Your task to perform on an android device: allow cookies in the chrome app Image 0: 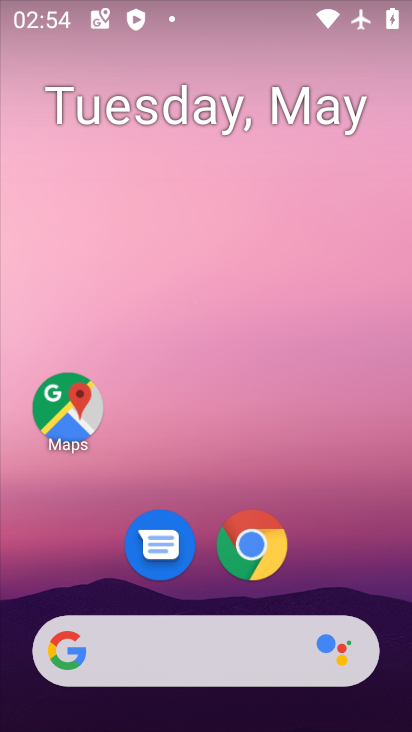
Step 0: click (253, 541)
Your task to perform on an android device: allow cookies in the chrome app Image 1: 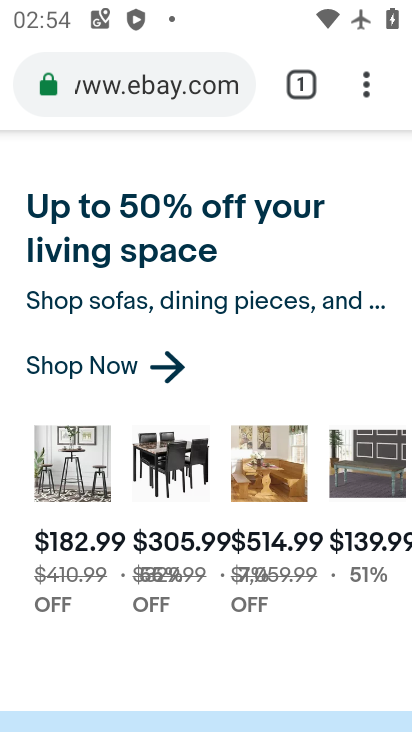
Step 1: click (364, 90)
Your task to perform on an android device: allow cookies in the chrome app Image 2: 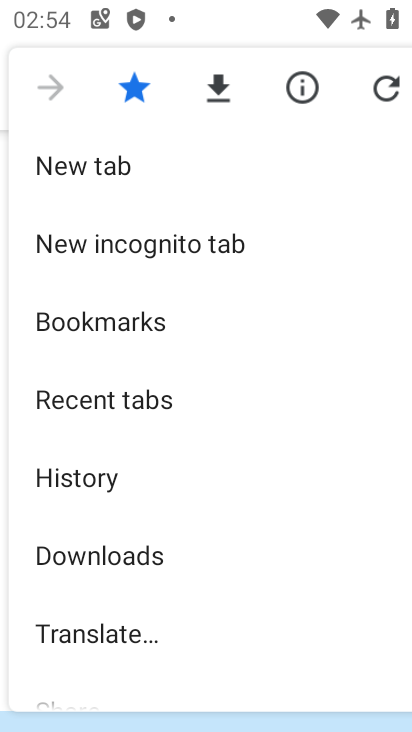
Step 2: drag from (226, 595) to (221, 270)
Your task to perform on an android device: allow cookies in the chrome app Image 3: 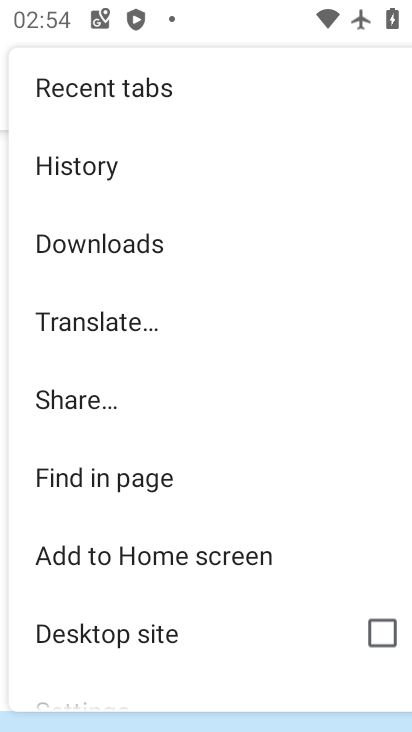
Step 3: drag from (279, 607) to (235, 234)
Your task to perform on an android device: allow cookies in the chrome app Image 4: 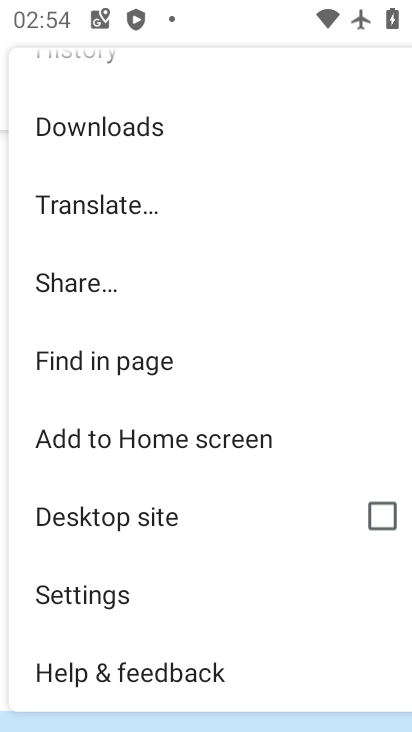
Step 4: click (94, 595)
Your task to perform on an android device: allow cookies in the chrome app Image 5: 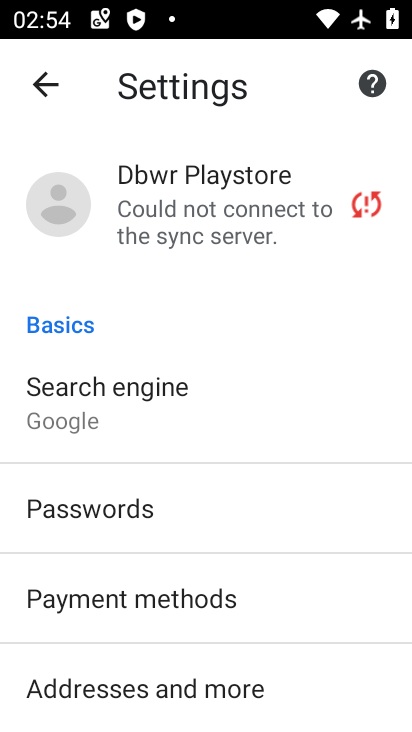
Step 5: drag from (290, 665) to (235, 317)
Your task to perform on an android device: allow cookies in the chrome app Image 6: 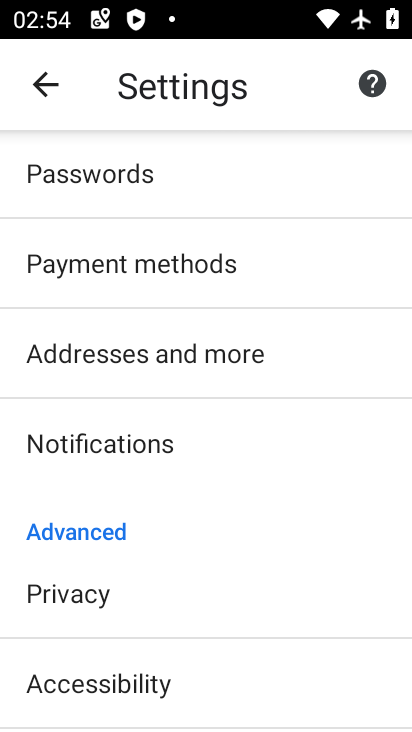
Step 6: drag from (186, 627) to (237, 251)
Your task to perform on an android device: allow cookies in the chrome app Image 7: 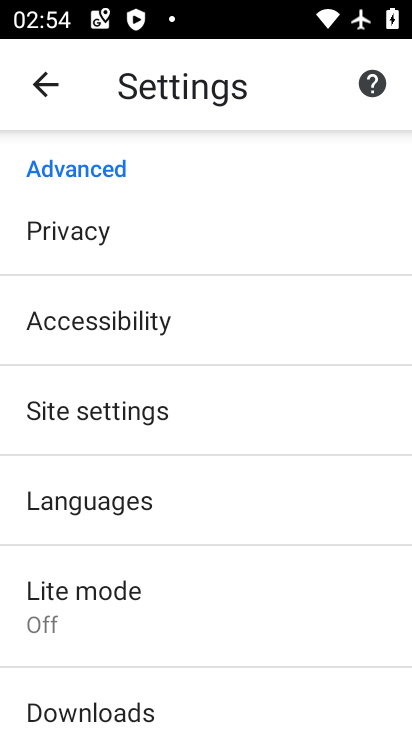
Step 7: click (79, 413)
Your task to perform on an android device: allow cookies in the chrome app Image 8: 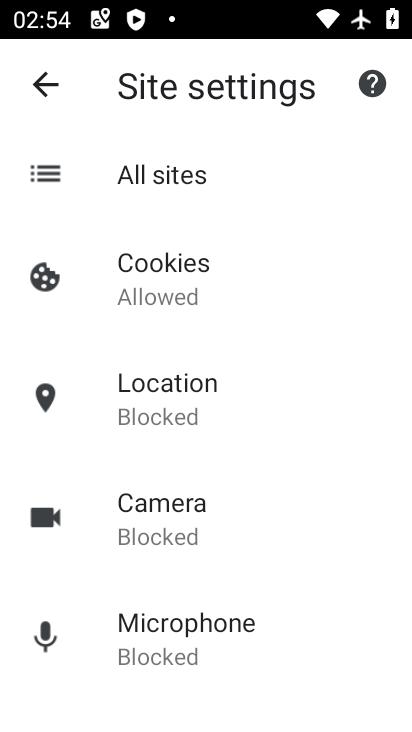
Step 8: click (161, 273)
Your task to perform on an android device: allow cookies in the chrome app Image 9: 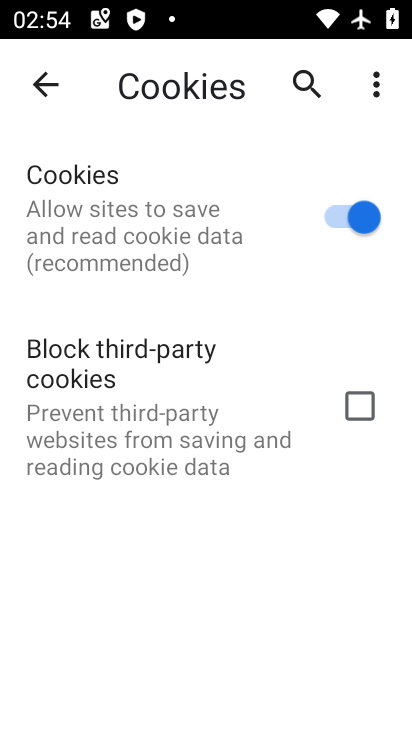
Step 9: task complete